Your task to perform on an android device: Open ESPN.com Image 0: 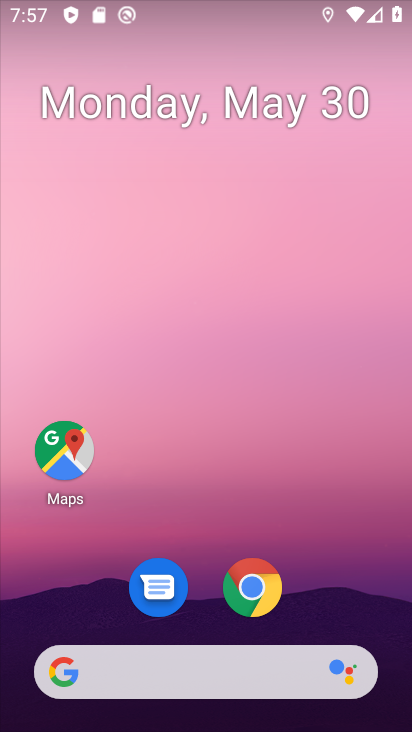
Step 0: press home button
Your task to perform on an android device: Open ESPN.com Image 1: 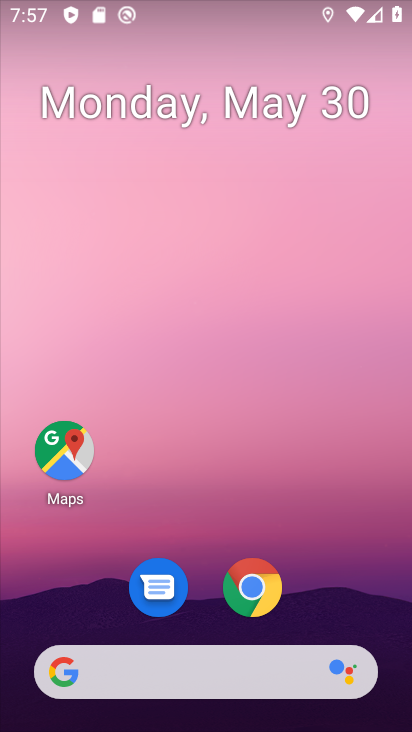
Step 1: click (251, 604)
Your task to perform on an android device: Open ESPN.com Image 2: 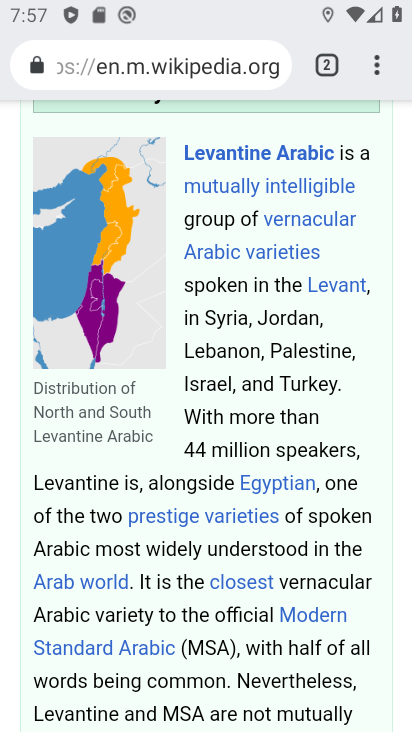
Step 2: drag from (378, 66) to (254, 127)
Your task to perform on an android device: Open ESPN.com Image 3: 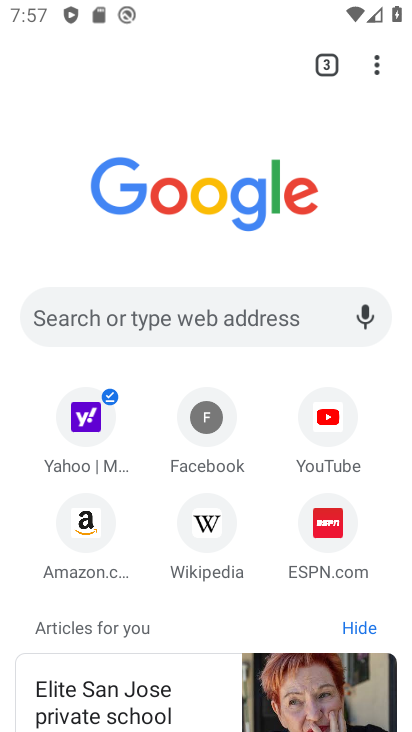
Step 3: click (114, 311)
Your task to perform on an android device: Open ESPN.com Image 4: 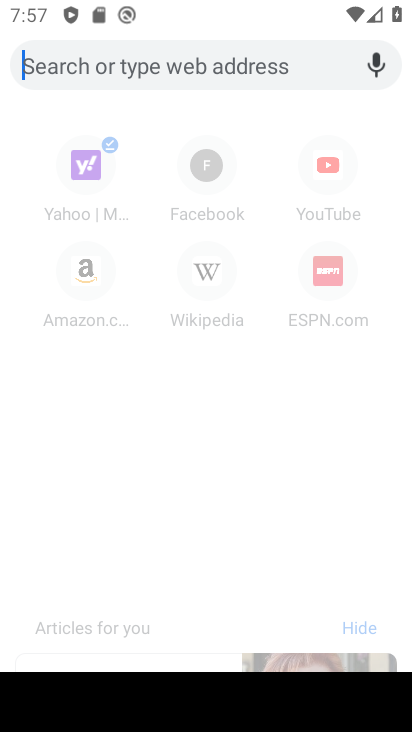
Step 4: click (329, 278)
Your task to perform on an android device: Open ESPN.com Image 5: 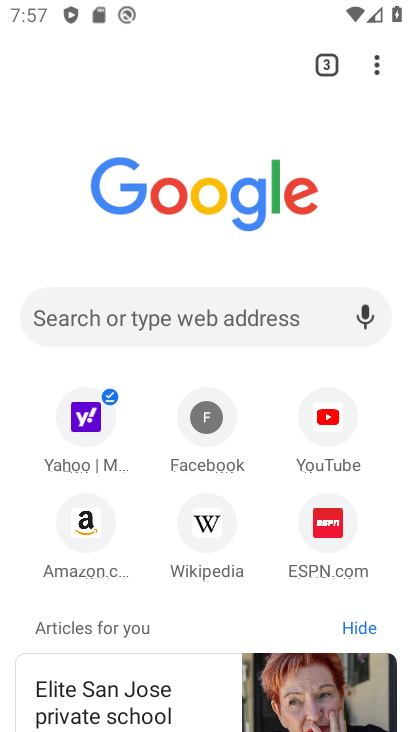
Step 5: click (331, 529)
Your task to perform on an android device: Open ESPN.com Image 6: 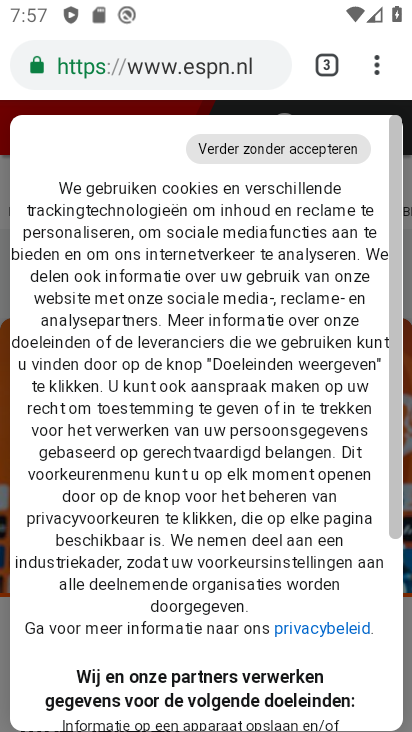
Step 6: drag from (179, 558) to (389, 64)
Your task to perform on an android device: Open ESPN.com Image 7: 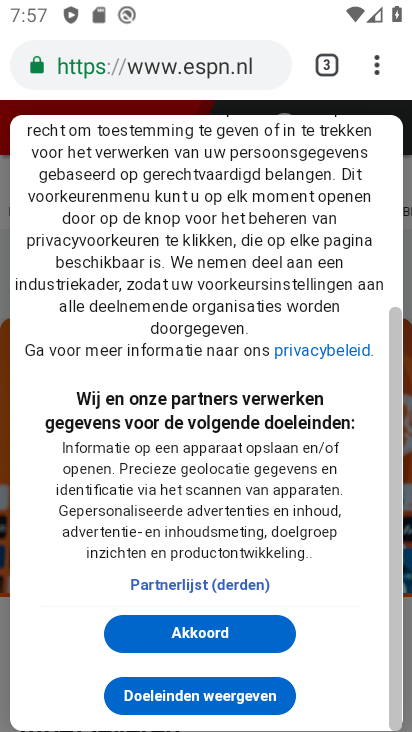
Step 7: click (225, 637)
Your task to perform on an android device: Open ESPN.com Image 8: 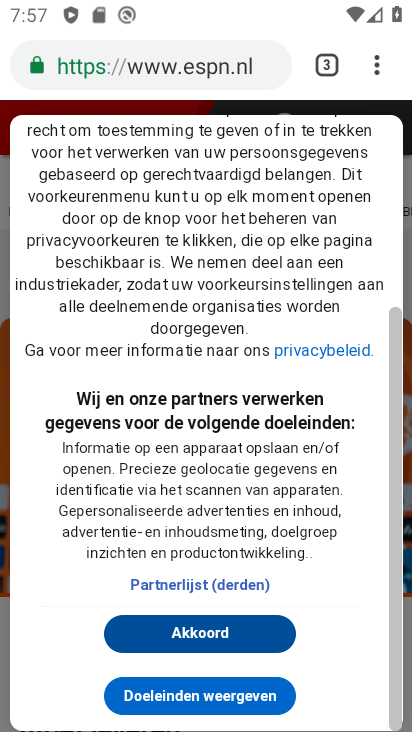
Step 8: click (202, 630)
Your task to perform on an android device: Open ESPN.com Image 9: 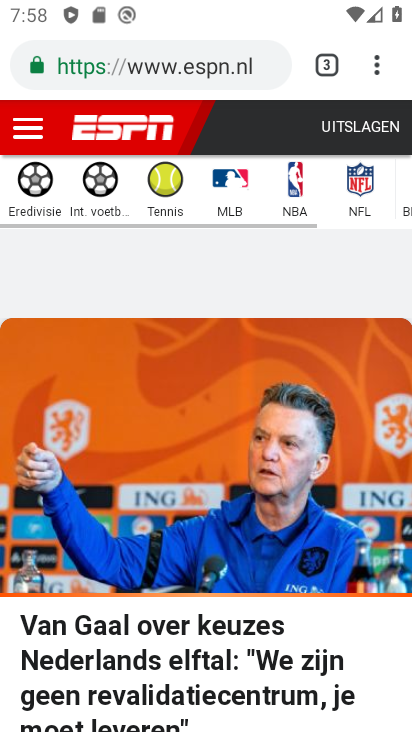
Step 9: task complete